Your task to perform on an android device: Go to privacy settings Image 0: 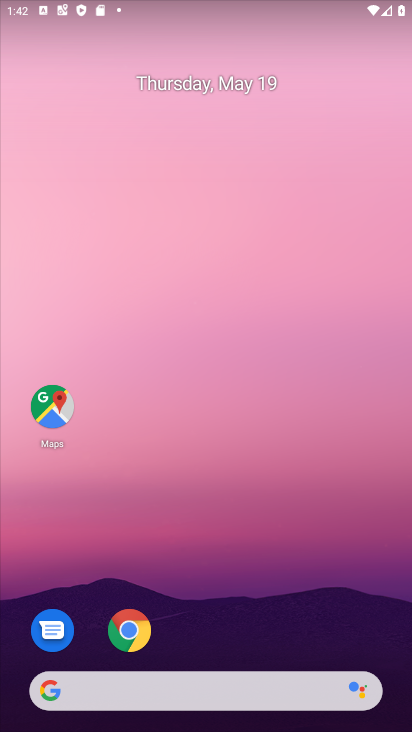
Step 0: drag from (399, 633) to (284, 109)
Your task to perform on an android device: Go to privacy settings Image 1: 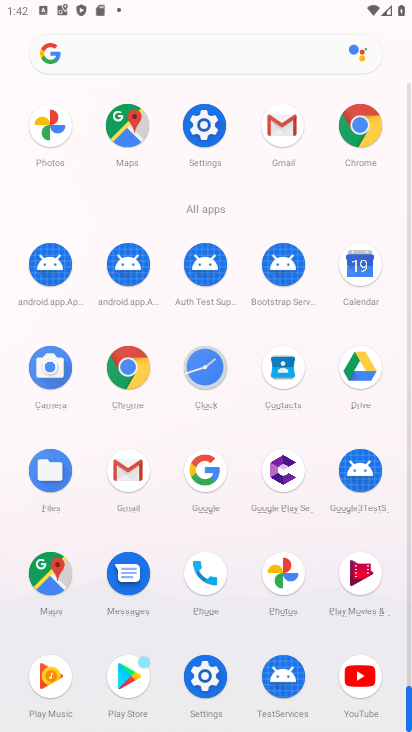
Step 1: click (203, 674)
Your task to perform on an android device: Go to privacy settings Image 2: 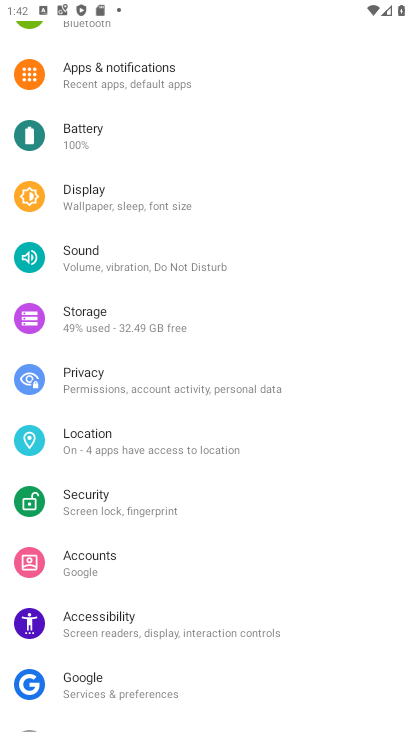
Step 2: click (91, 371)
Your task to perform on an android device: Go to privacy settings Image 3: 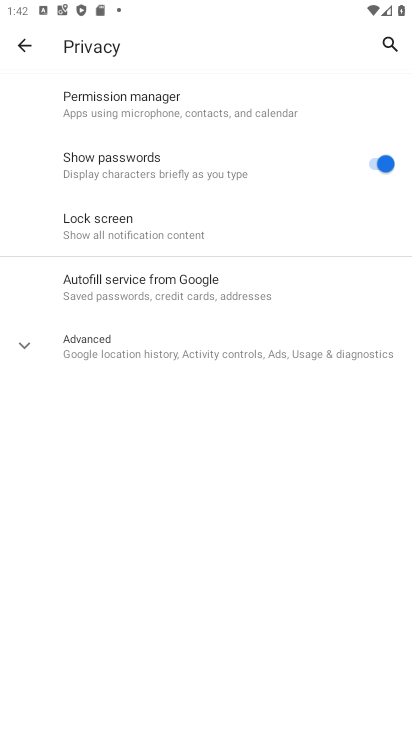
Step 3: click (25, 344)
Your task to perform on an android device: Go to privacy settings Image 4: 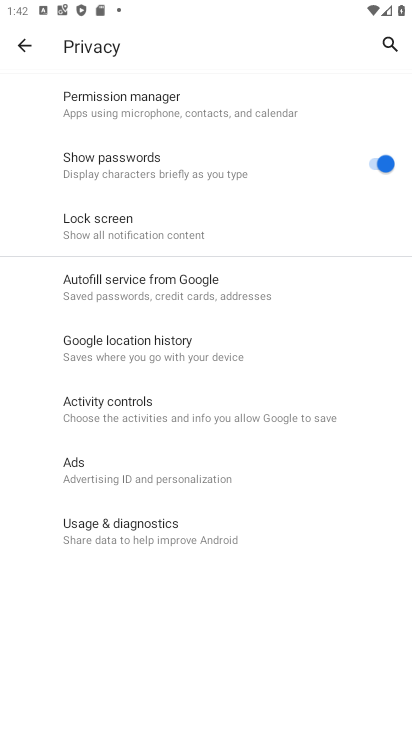
Step 4: task complete